Your task to perform on an android device: Go to location settings Image 0: 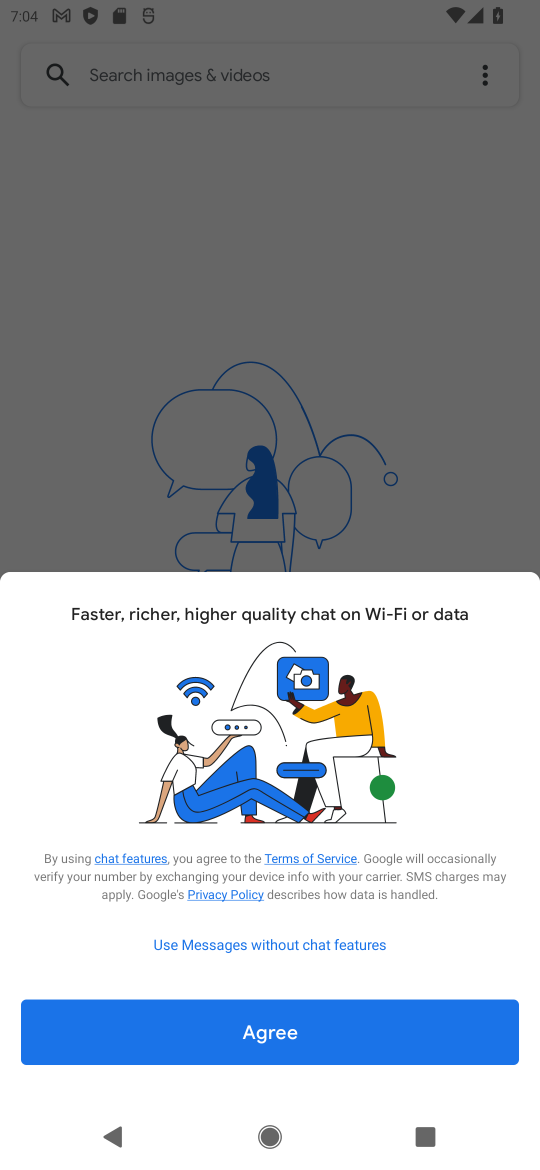
Step 0: press home button
Your task to perform on an android device: Go to location settings Image 1: 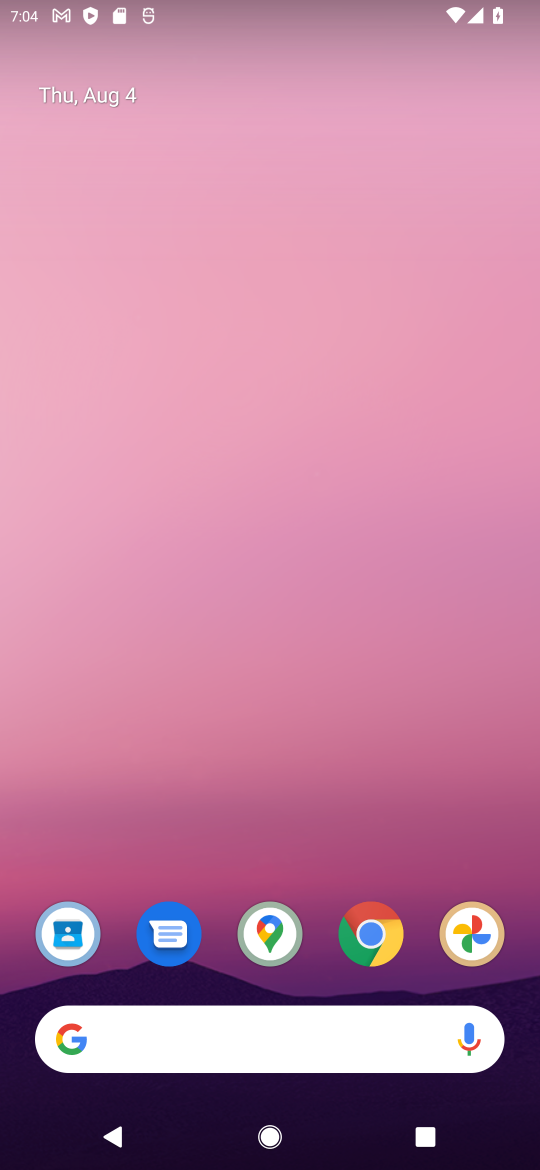
Step 1: drag from (232, 1025) to (256, 11)
Your task to perform on an android device: Go to location settings Image 2: 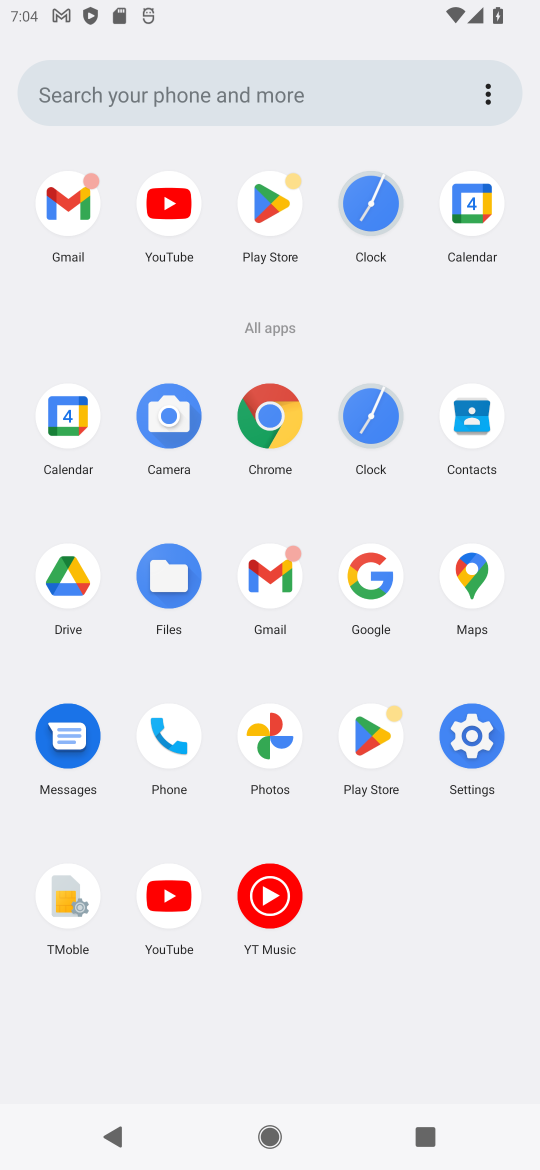
Step 2: click (478, 761)
Your task to perform on an android device: Go to location settings Image 3: 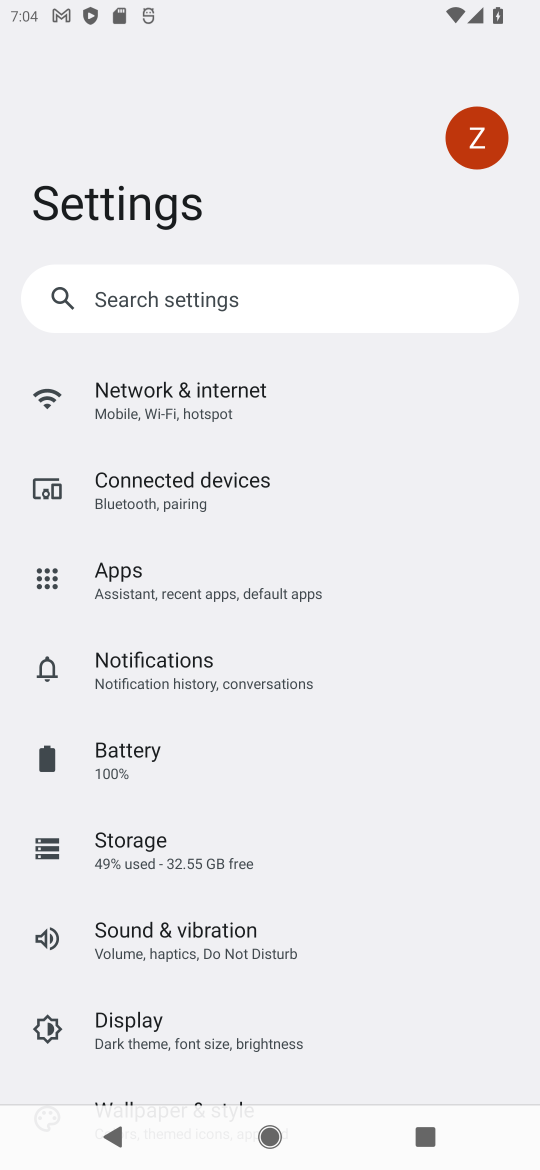
Step 3: drag from (213, 943) to (156, 288)
Your task to perform on an android device: Go to location settings Image 4: 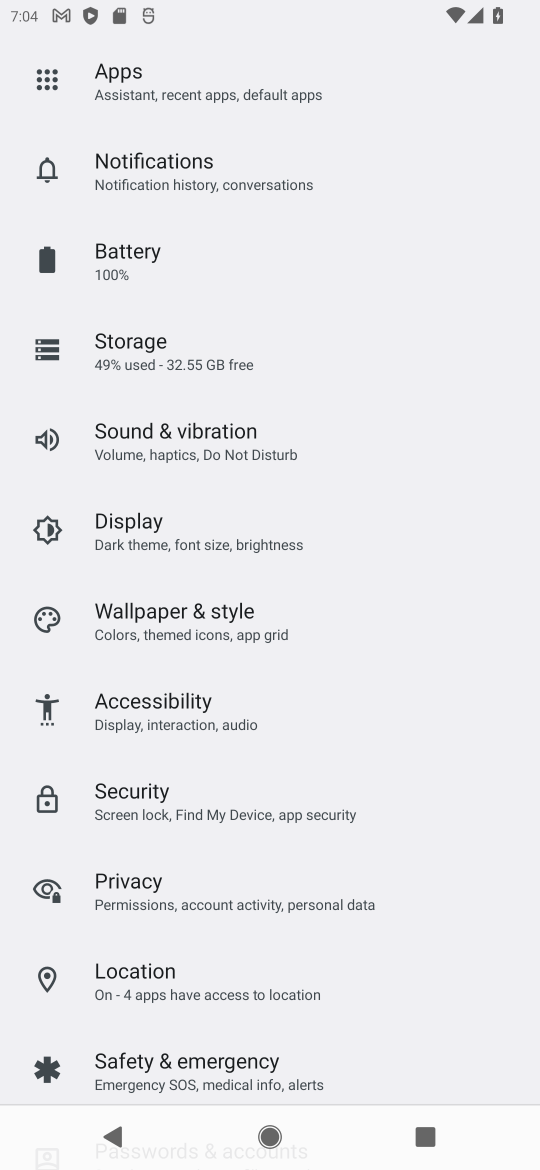
Step 4: click (174, 975)
Your task to perform on an android device: Go to location settings Image 5: 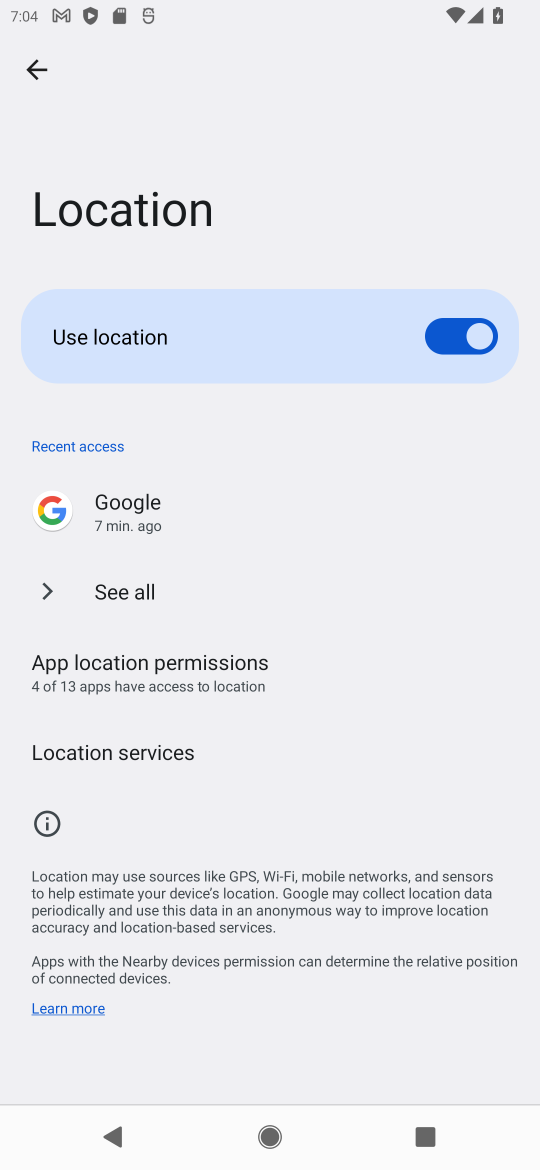
Step 5: task complete